Your task to perform on an android device: turn off improve location accuracy Image 0: 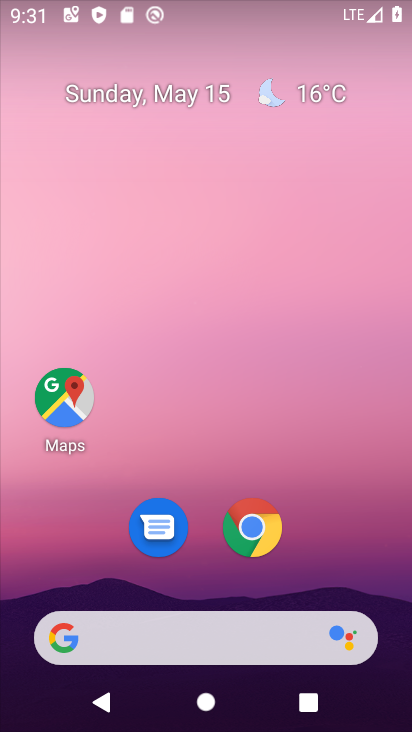
Step 0: click (258, 541)
Your task to perform on an android device: turn off improve location accuracy Image 1: 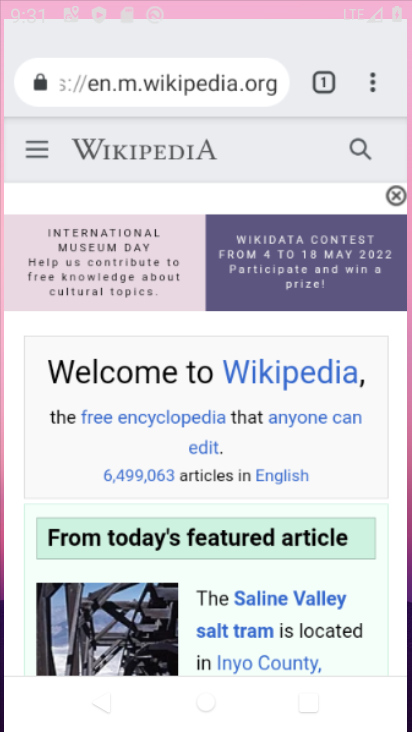
Step 1: click (253, 520)
Your task to perform on an android device: turn off improve location accuracy Image 2: 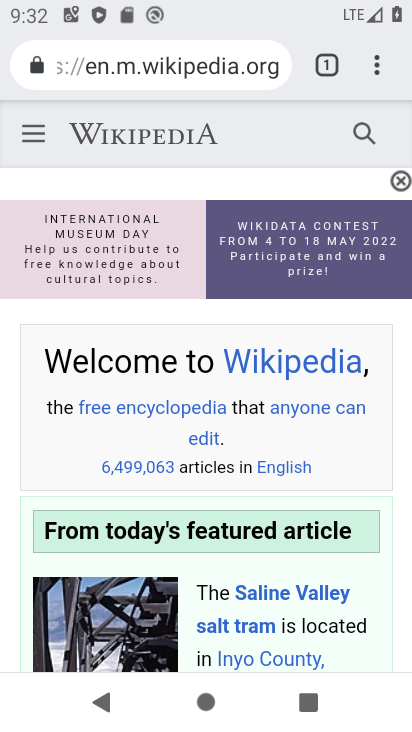
Step 2: press home button
Your task to perform on an android device: turn off improve location accuracy Image 3: 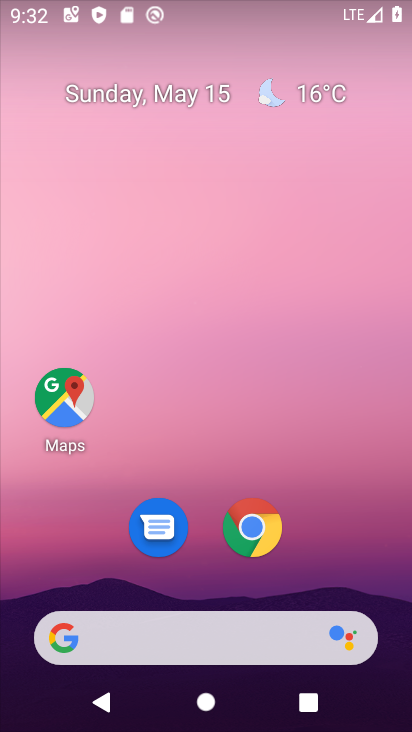
Step 3: drag from (348, 325) to (355, 0)
Your task to perform on an android device: turn off improve location accuracy Image 4: 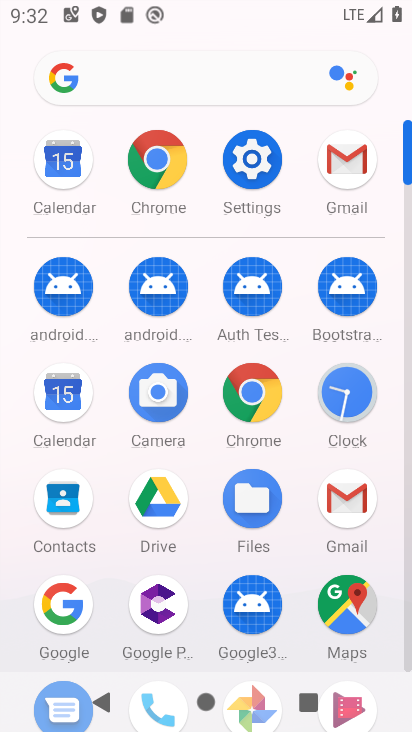
Step 4: click (248, 171)
Your task to perform on an android device: turn off improve location accuracy Image 5: 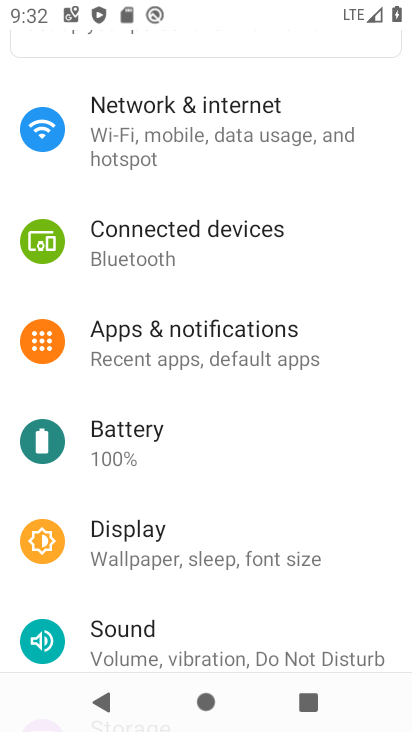
Step 5: drag from (372, 536) to (345, 324)
Your task to perform on an android device: turn off improve location accuracy Image 6: 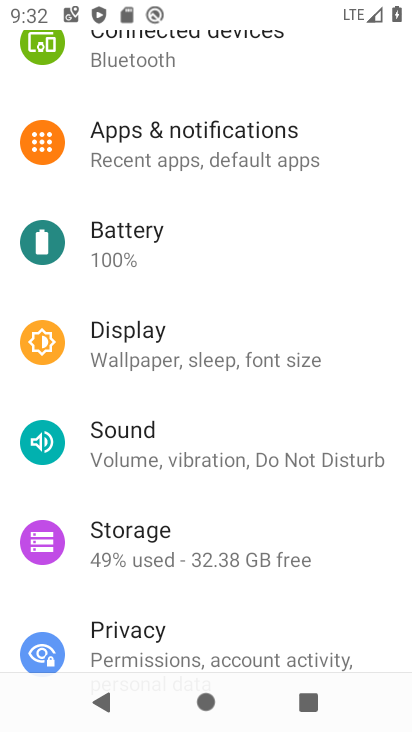
Step 6: drag from (379, 562) to (360, 345)
Your task to perform on an android device: turn off improve location accuracy Image 7: 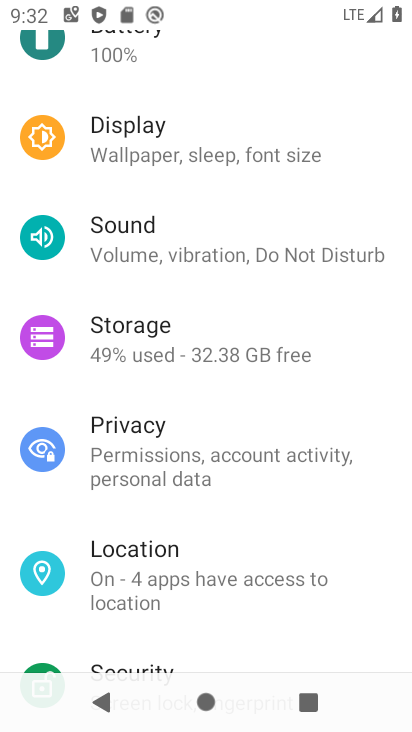
Step 7: click (112, 581)
Your task to perform on an android device: turn off improve location accuracy Image 8: 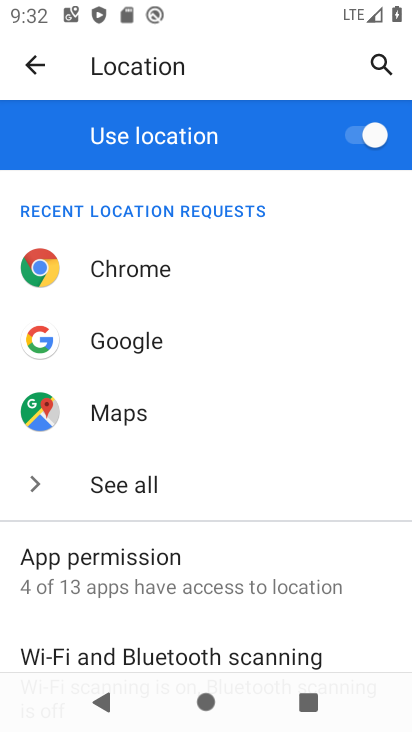
Step 8: drag from (351, 519) to (348, 180)
Your task to perform on an android device: turn off improve location accuracy Image 9: 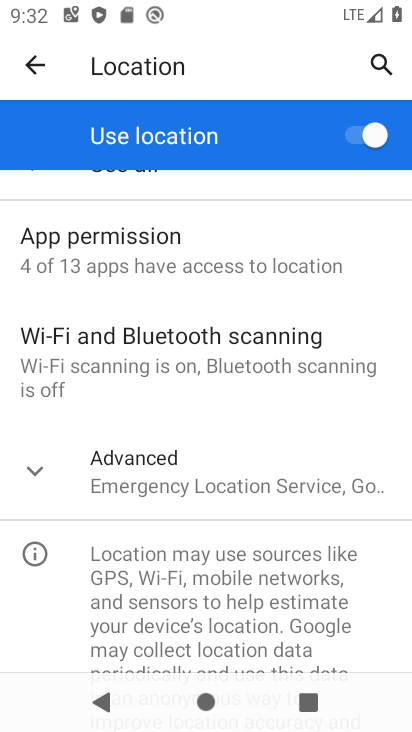
Step 9: click (33, 478)
Your task to perform on an android device: turn off improve location accuracy Image 10: 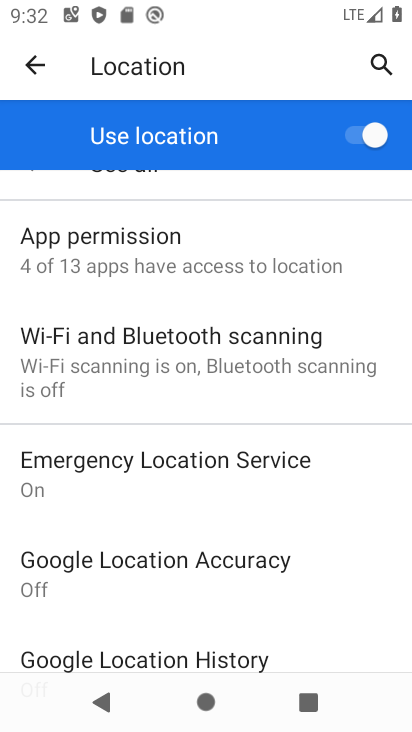
Step 10: click (59, 596)
Your task to perform on an android device: turn off improve location accuracy Image 11: 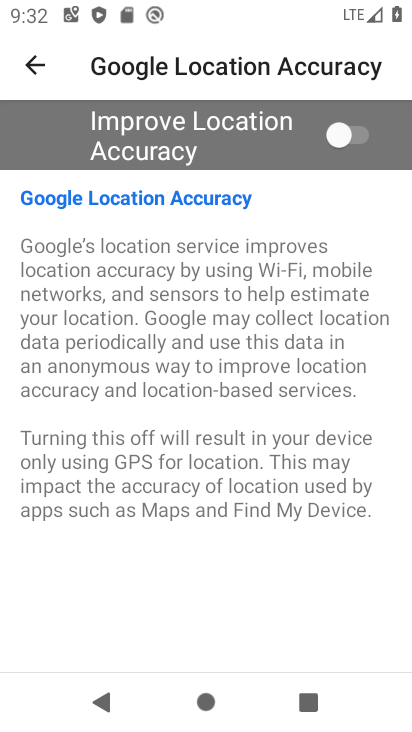
Step 11: task complete